Your task to perform on an android device: Play the last video I watched on Youtube Image 0: 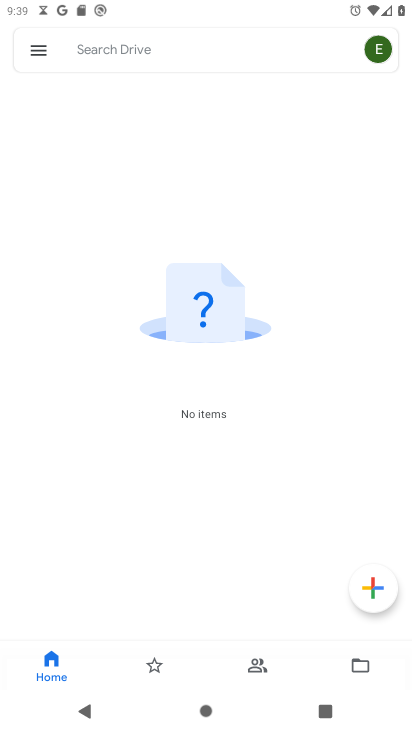
Step 0: press home button
Your task to perform on an android device: Play the last video I watched on Youtube Image 1: 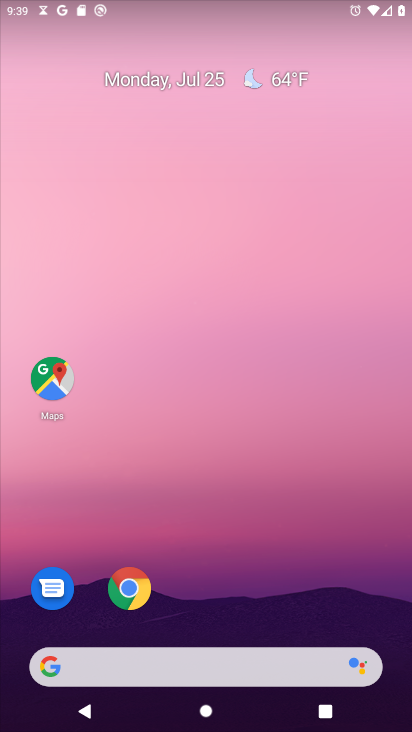
Step 1: drag from (238, 653) to (261, 110)
Your task to perform on an android device: Play the last video I watched on Youtube Image 2: 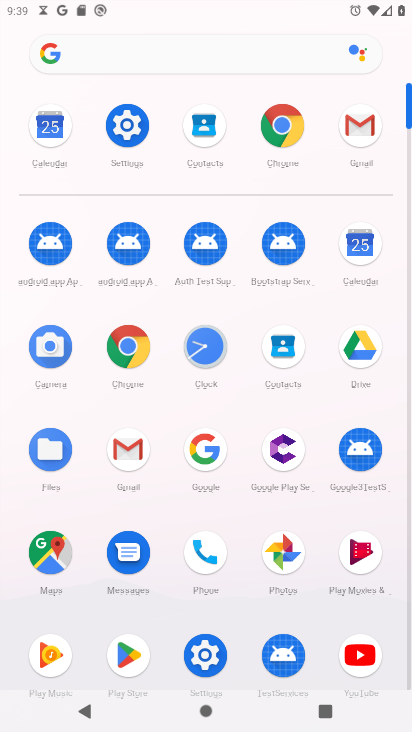
Step 2: click (348, 638)
Your task to perform on an android device: Play the last video I watched on Youtube Image 3: 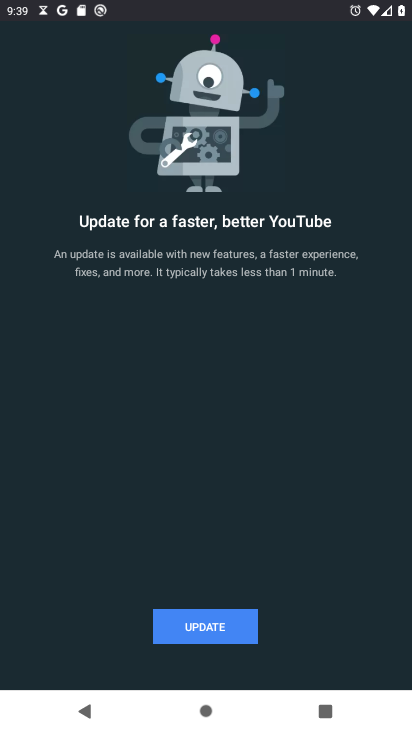
Step 3: click (200, 620)
Your task to perform on an android device: Play the last video I watched on Youtube Image 4: 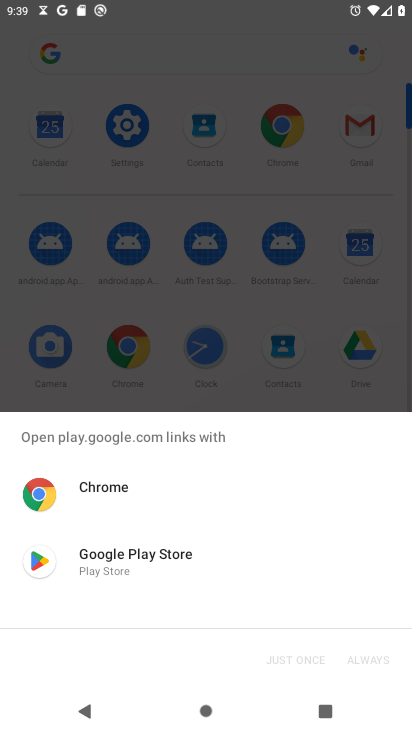
Step 4: click (114, 564)
Your task to perform on an android device: Play the last video I watched on Youtube Image 5: 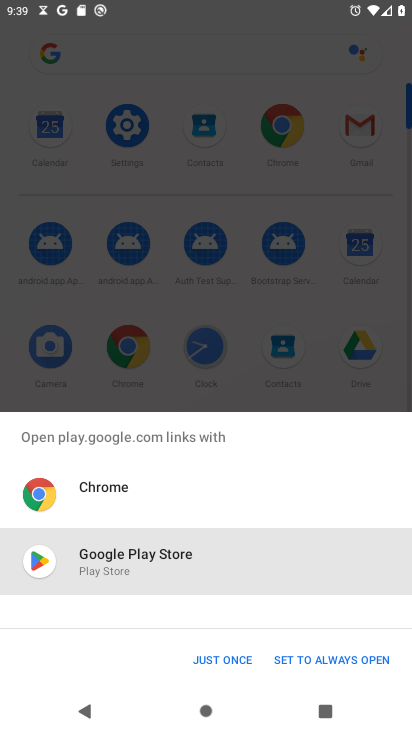
Step 5: click (220, 657)
Your task to perform on an android device: Play the last video I watched on Youtube Image 6: 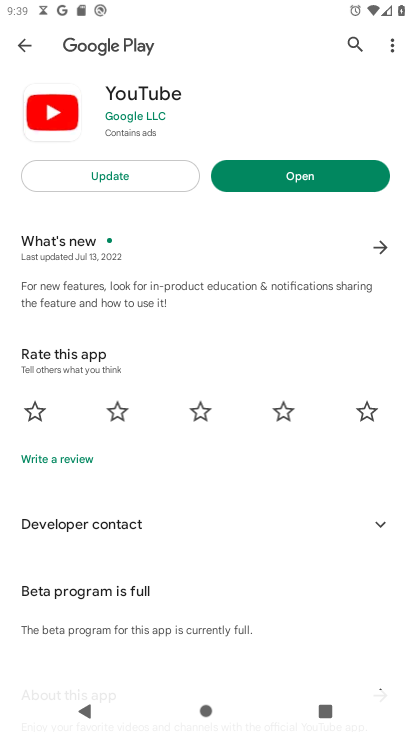
Step 6: click (187, 176)
Your task to perform on an android device: Play the last video I watched on Youtube Image 7: 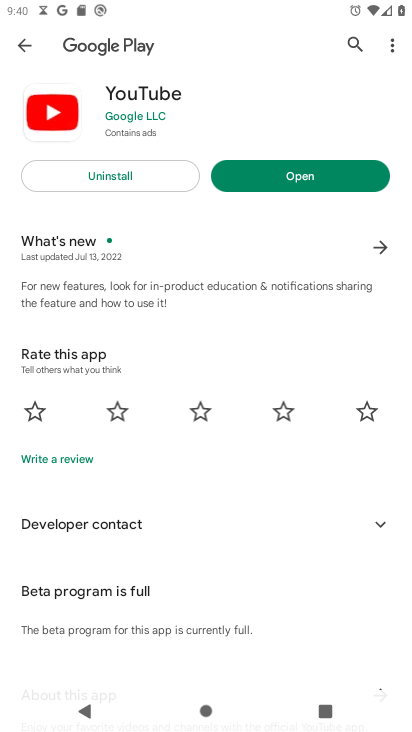
Step 7: click (329, 174)
Your task to perform on an android device: Play the last video I watched on Youtube Image 8: 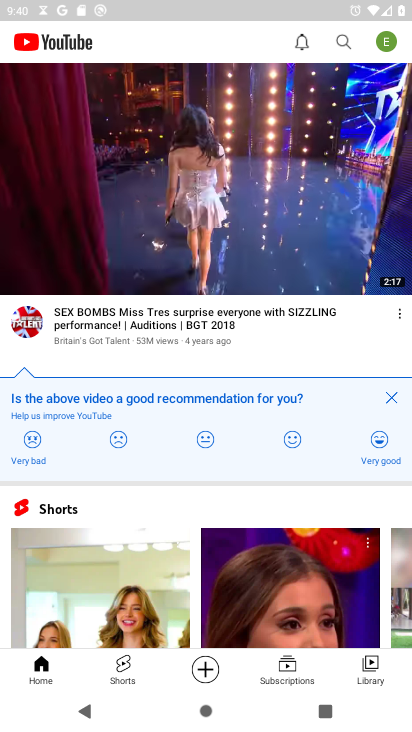
Step 8: click (372, 667)
Your task to perform on an android device: Play the last video I watched on Youtube Image 9: 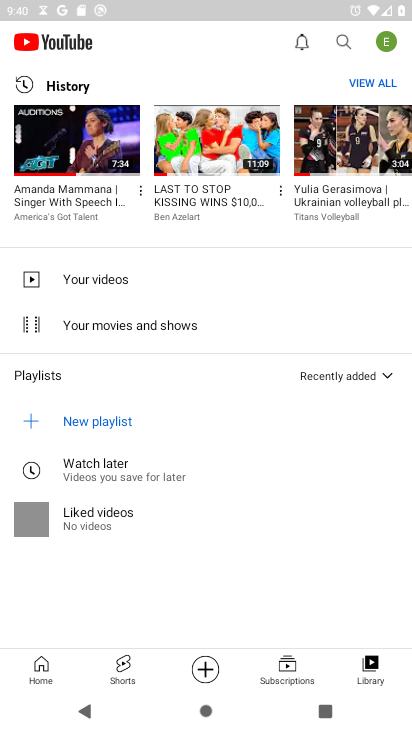
Step 9: click (74, 131)
Your task to perform on an android device: Play the last video I watched on Youtube Image 10: 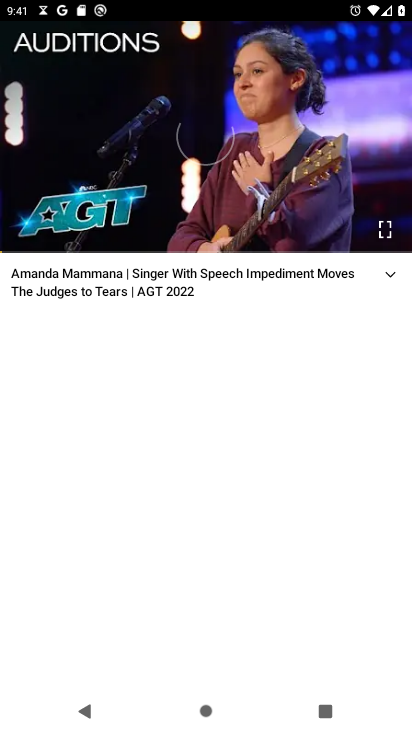
Step 10: task complete